Your task to perform on an android device: open app "Microsoft Outlook" (install if not already installed) Image 0: 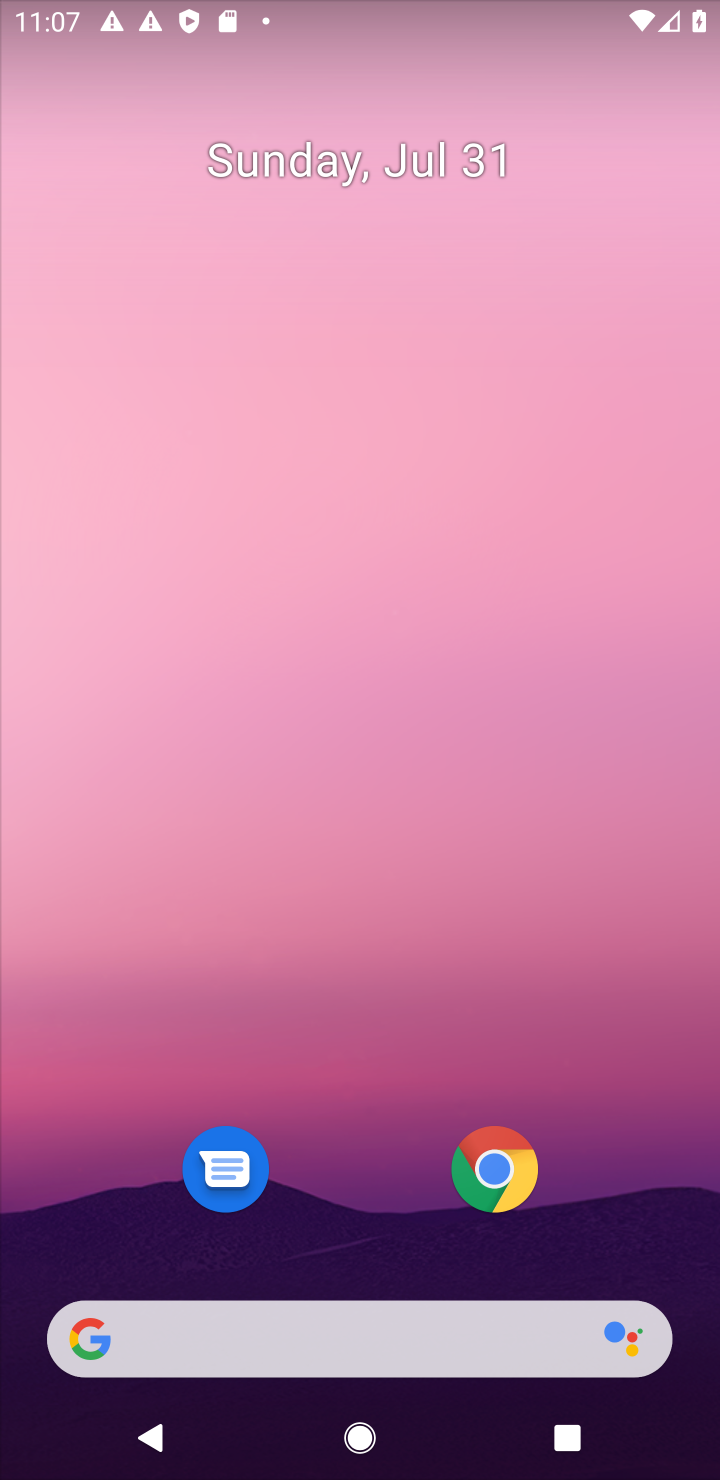
Step 0: click (471, 523)
Your task to perform on an android device: open app "Microsoft Outlook" (install if not already installed) Image 1: 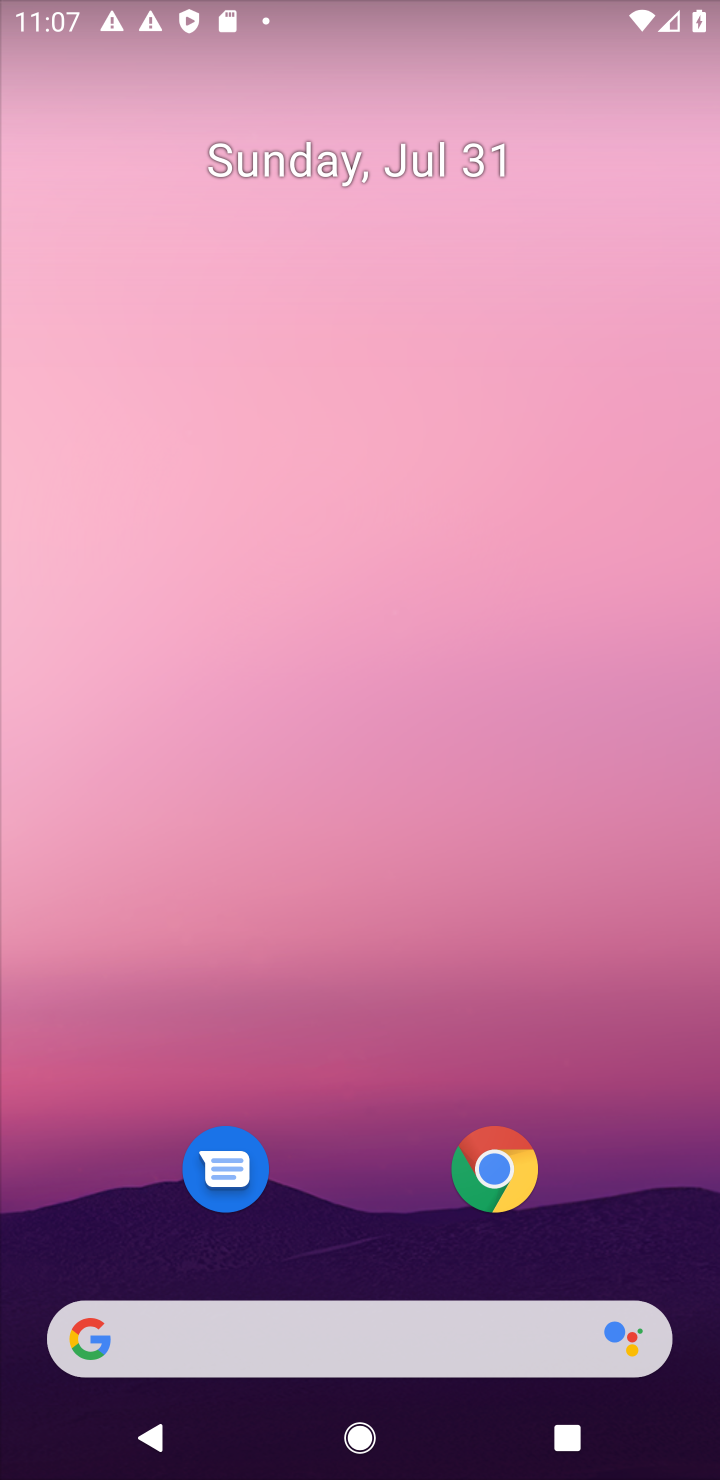
Step 1: drag from (380, 1052) to (428, 283)
Your task to perform on an android device: open app "Microsoft Outlook" (install if not already installed) Image 2: 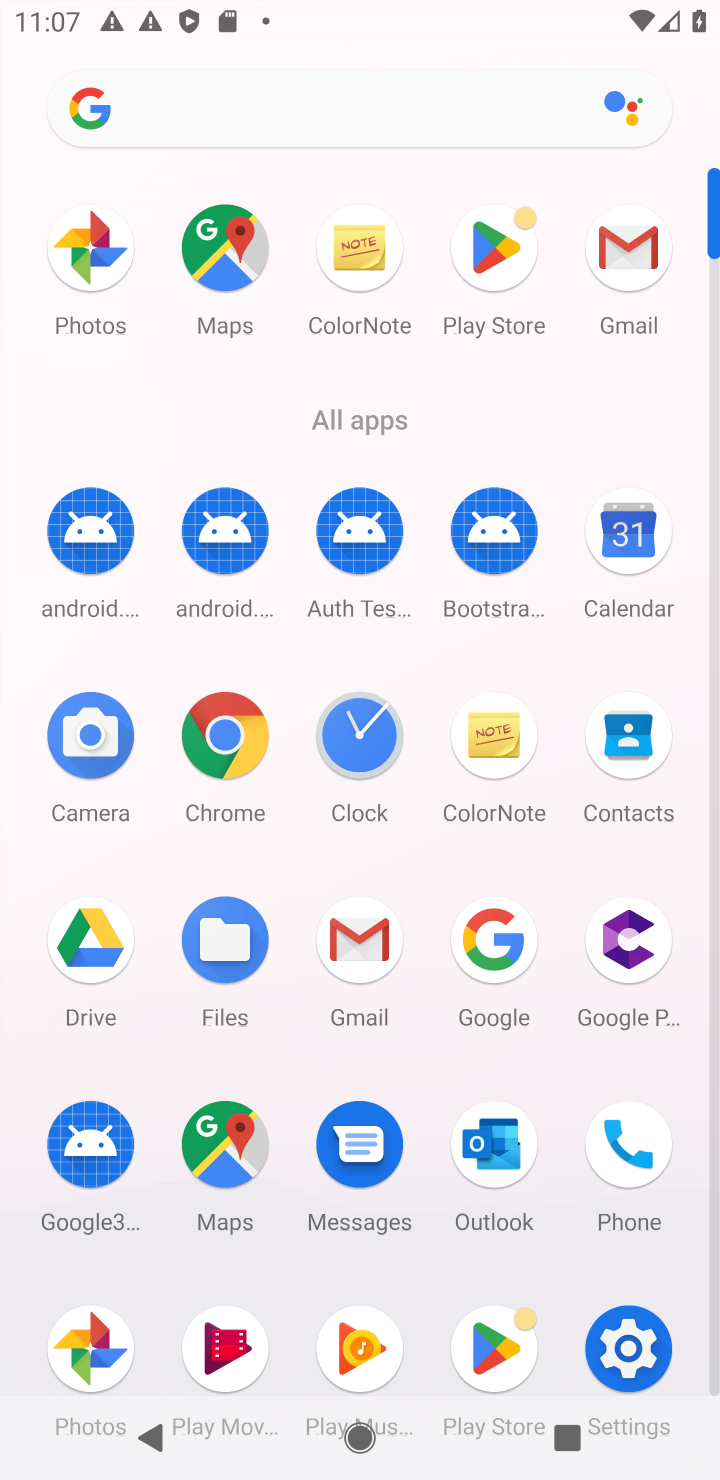
Step 2: drag from (404, 1307) to (445, 545)
Your task to perform on an android device: open app "Microsoft Outlook" (install if not already installed) Image 3: 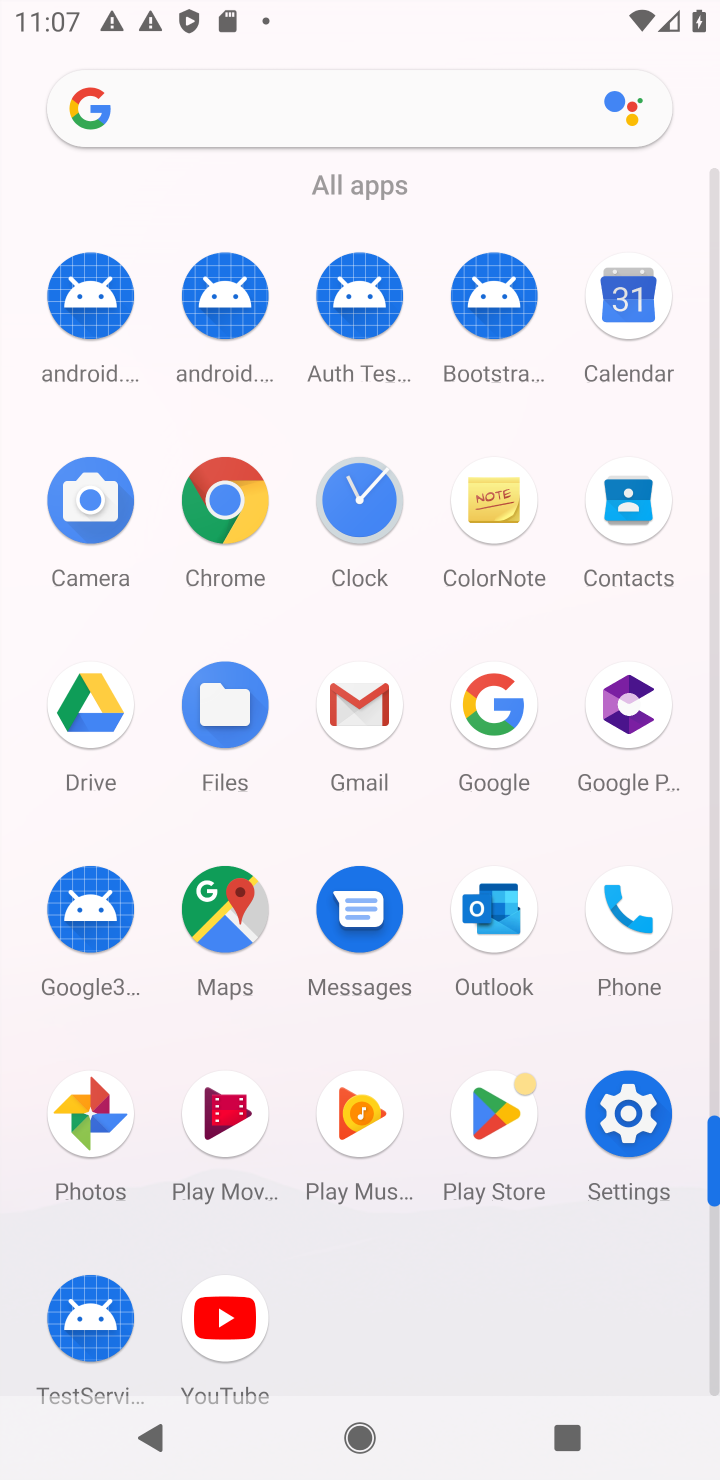
Step 3: click (473, 925)
Your task to perform on an android device: open app "Microsoft Outlook" (install if not already installed) Image 4: 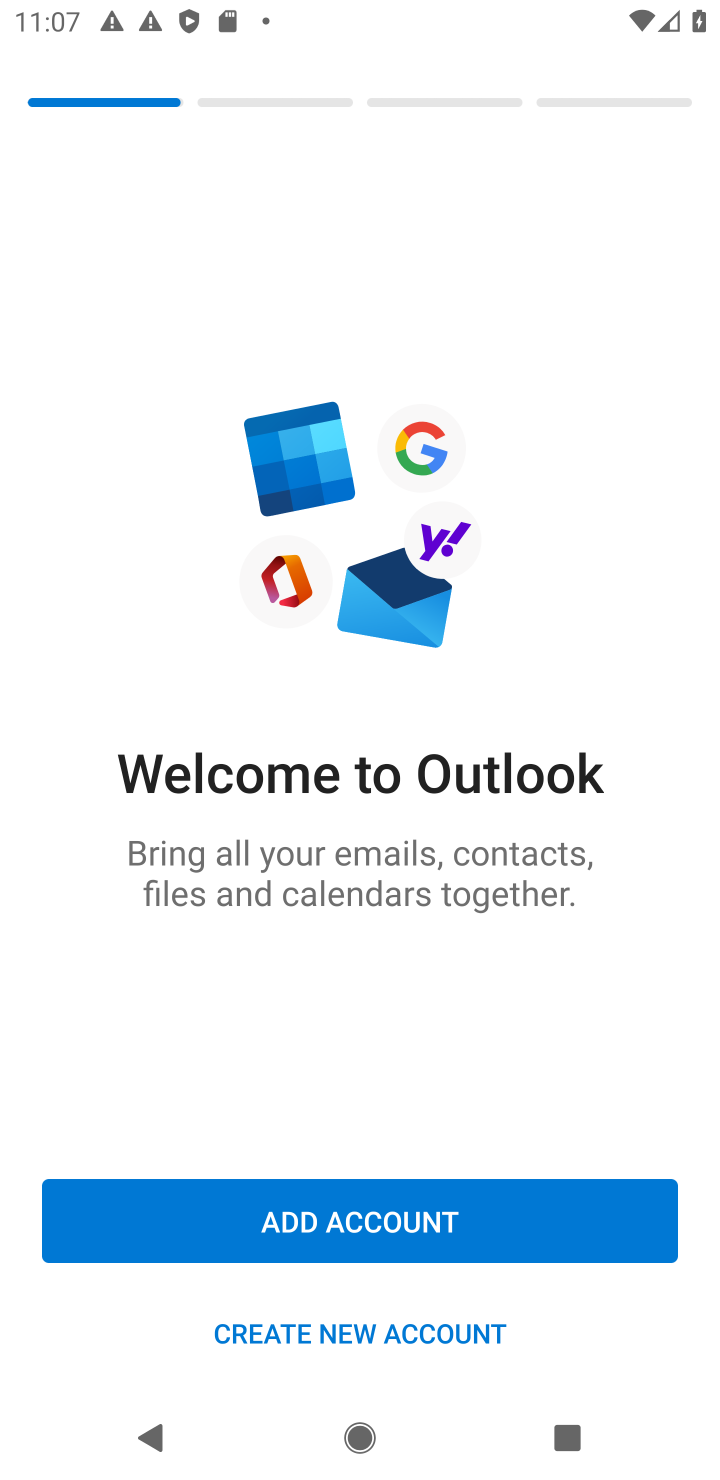
Step 4: task complete